Your task to perform on an android device: Open Amazon Image 0: 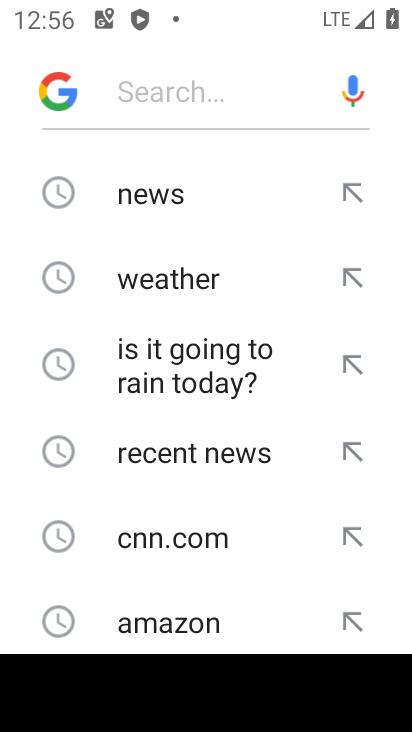
Step 0: press home button
Your task to perform on an android device: Open Amazon Image 1: 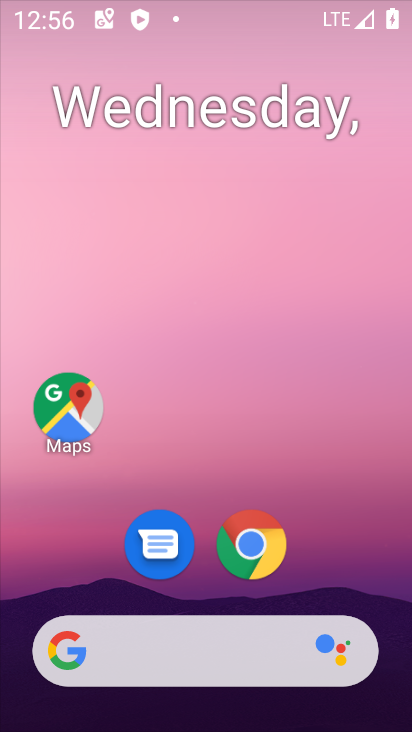
Step 1: drag from (395, 638) to (349, 50)
Your task to perform on an android device: Open Amazon Image 2: 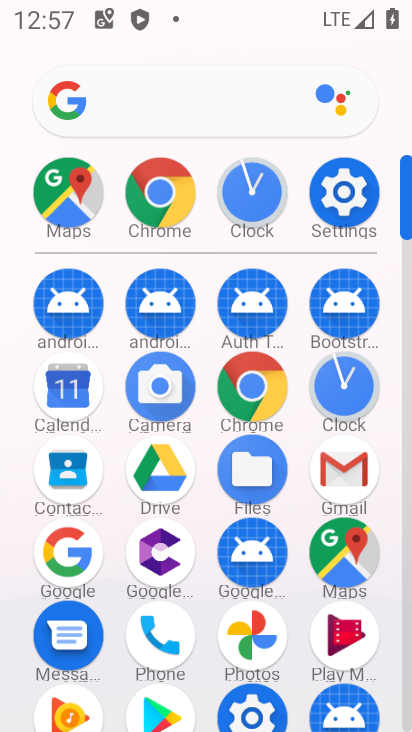
Step 2: click (247, 393)
Your task to perform on an android device: Open Amazon Image 3: 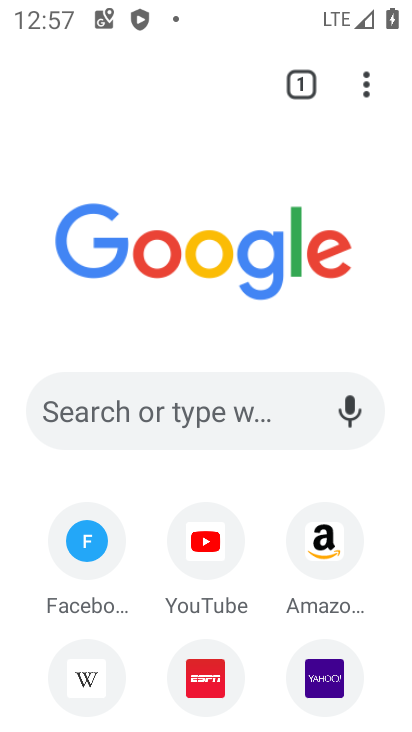
Step 3: click (316, 539)
Your task to perform on an android device: Open Amazon Image 4: 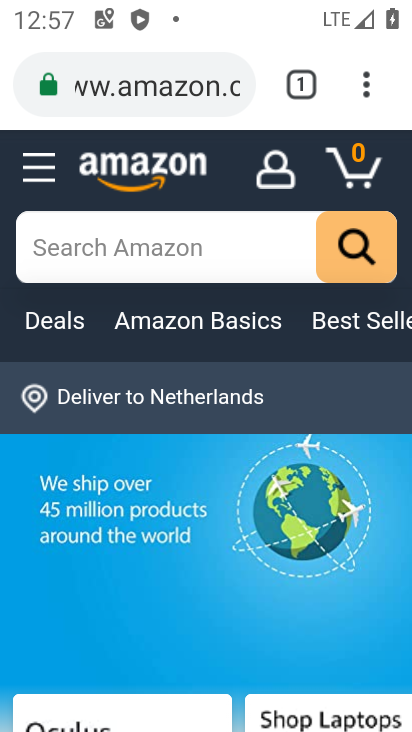
Step 4: task complete